Your task to perform on an android device: Search for sushi restaurants on Maps Image 0: 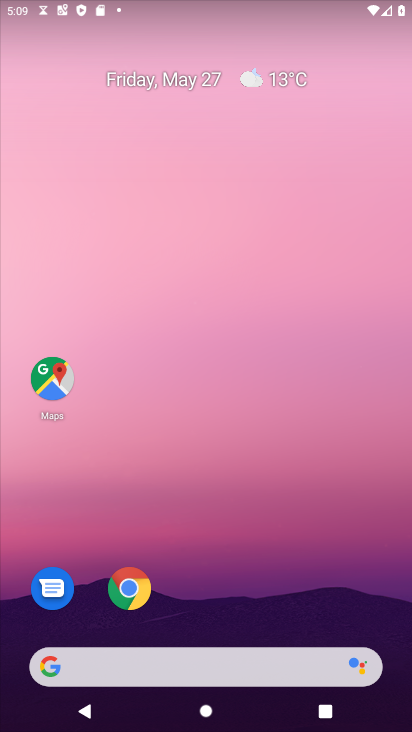
Step 0: click (38, 371)
Your task to perform on an android device: Search for sushi restaurants on Maps Image 1: 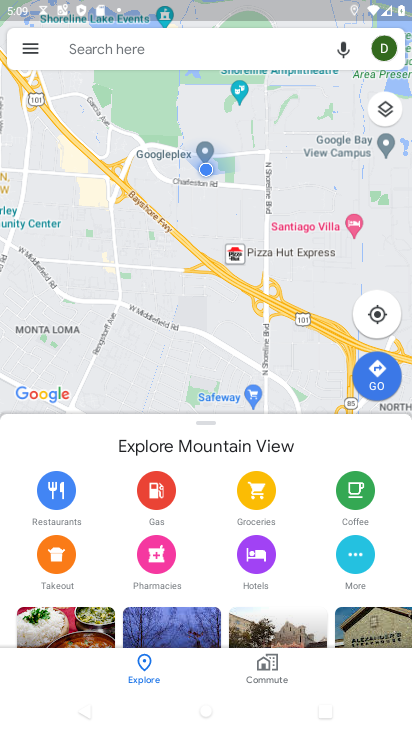
Step 1: click (136, 50)
Your task to perform on an android device: Search for sushi restaurants on Maps Image 2: 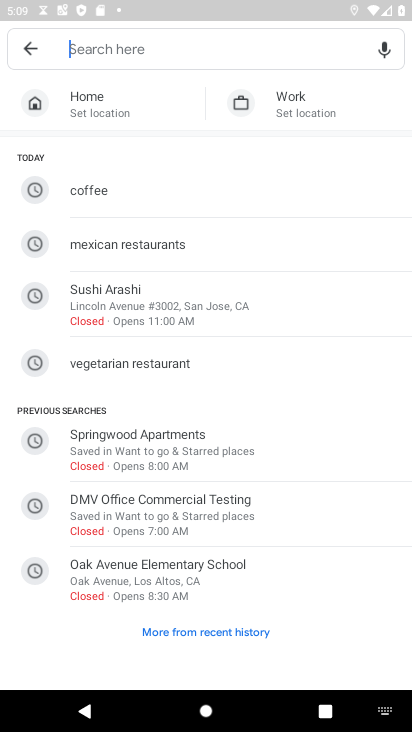
Step 2: type "sushi restraunts"
Your task to perform on an android device: Search for sushi restaurants on Maps Image 3: 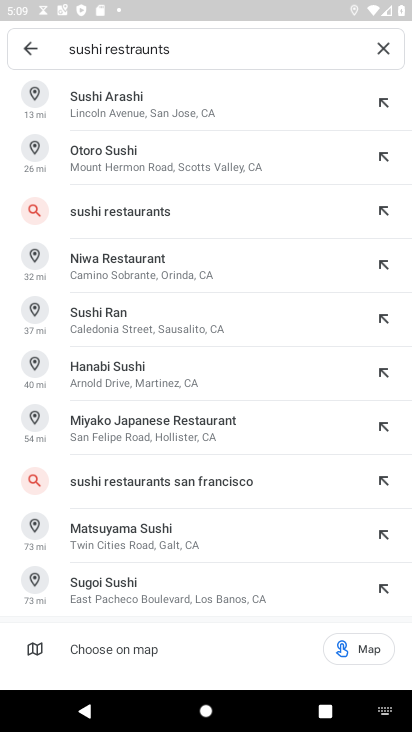
Step 3: click (162, 215)
Your task to perform on an android device: Search for sushi restaurants on Maps Image 4: 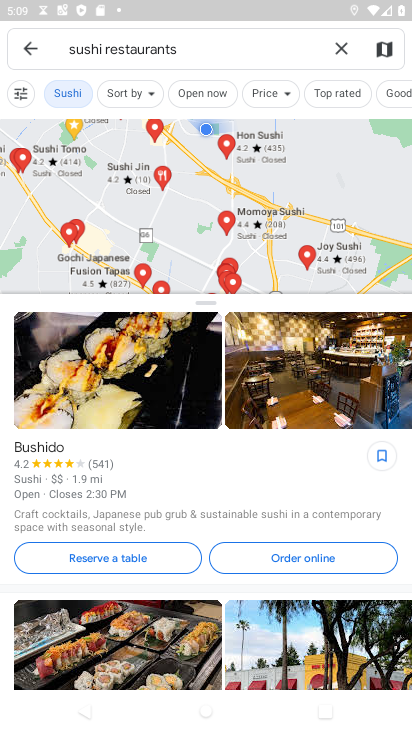
Step 4: task complete